Your task to perform on an android device: Play the last video I watched on Youtube Image 0: 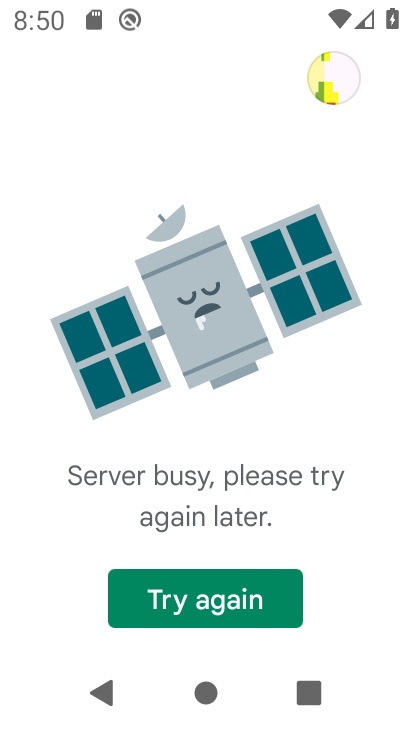
Step 0: press home button
Your task to perform on an android device: Play the last video I watched on Youtube Image 1: 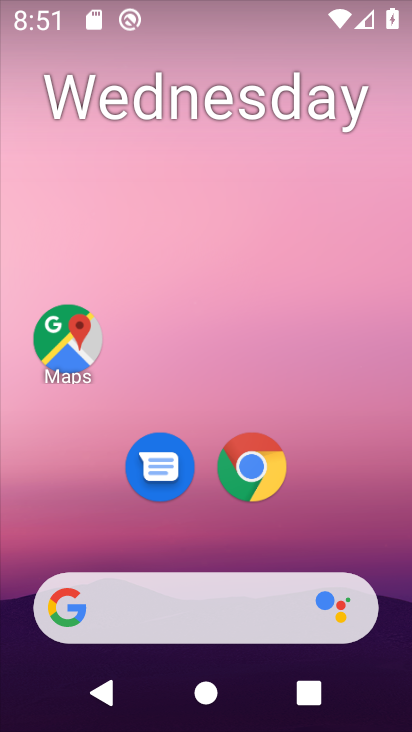
Step 1: drag from (323, 473) to (323, 33)
Your task to perform on an android device: Play the last video I watched on Youtube Image 2: 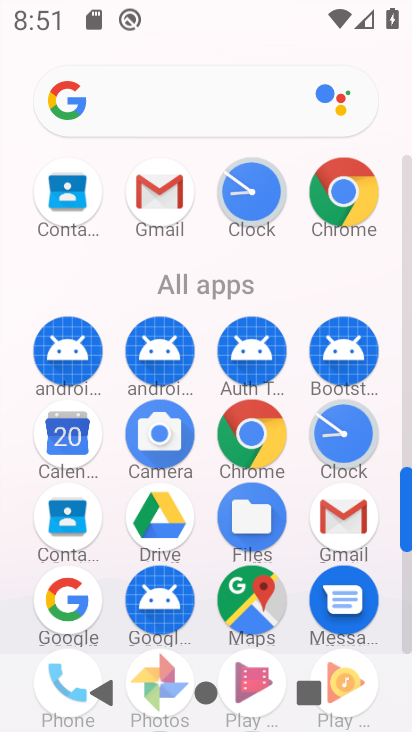
Step 2: drag from (382, 424) to (315, 195)
Your task to perform on an android device: Play the last video I watched on Youtube Image 3: 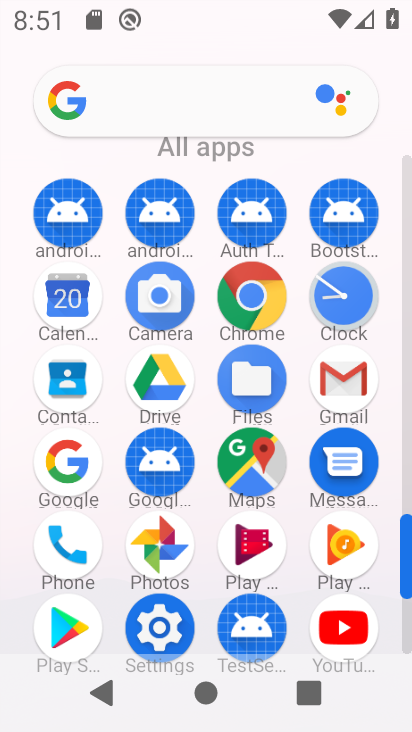
Step 3: click (351, 618)
Your task to perform on an android device: Play the last video I watched on Youtube Image 4: 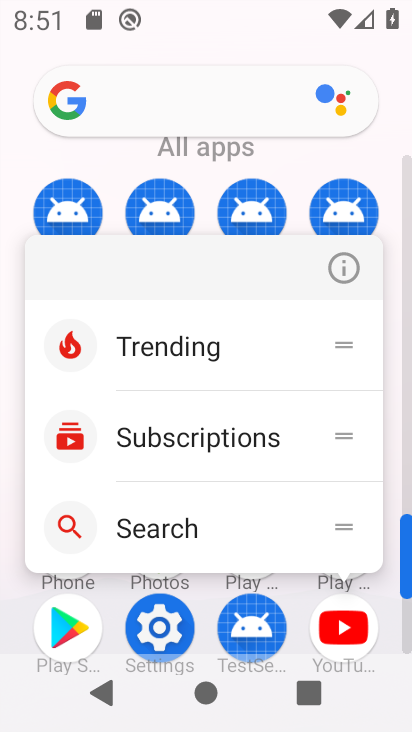
Step 4: click (351, 617)
Your task to perform on an android device: Play the last video I watched on Youtube Image 5: 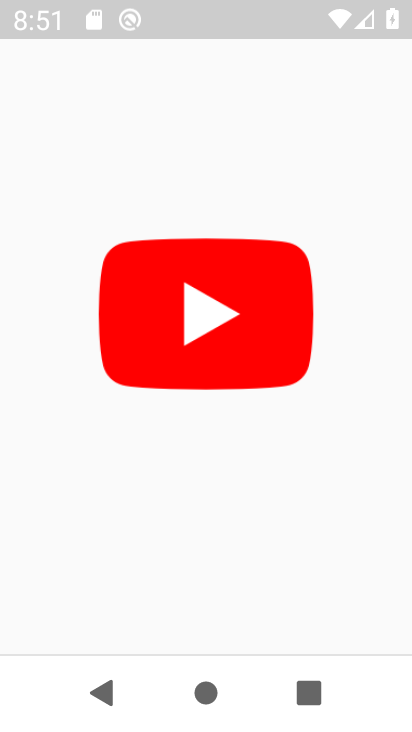
Step 5: click (351, 616)
Your task to perform on an android device: Play the last video I watched on Youtube Image 6: 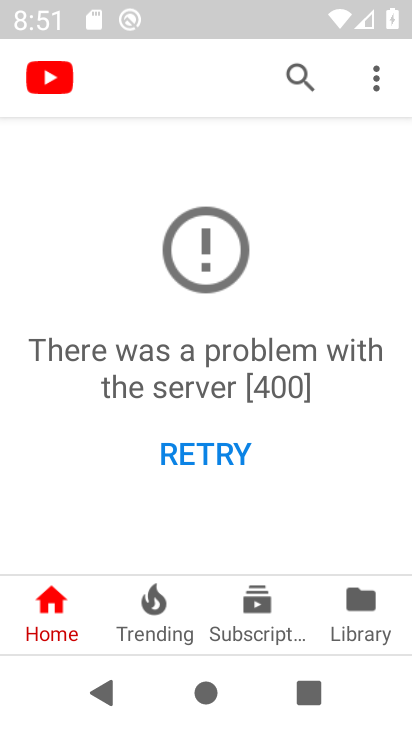
Step 6: click (352, 645)
Your task to perform on an android device: Play the last video I watched on Youtube Image 7: 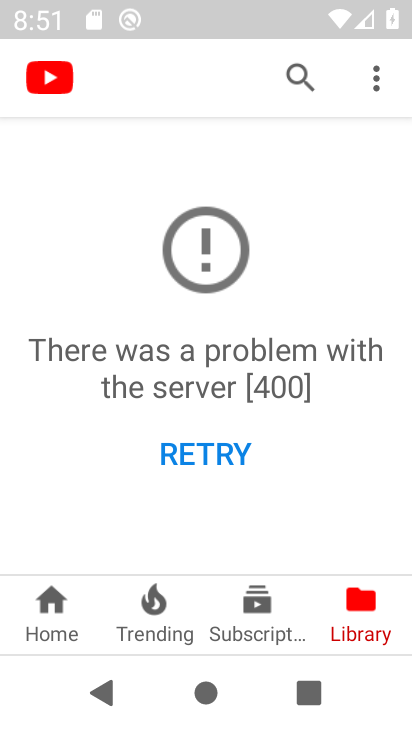
Step 7: click (358, 622)
Your task to perform on an android device: Play the last video I watched on Youtube Image 8: 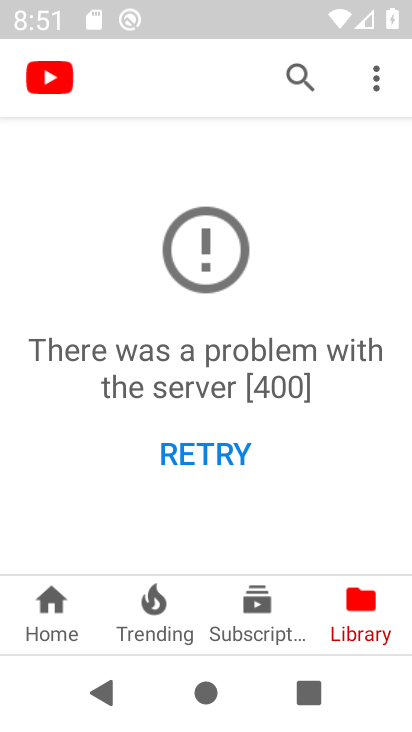
Step 8: click (358, 621)
Your task to perform on an android device: Play the last video I watched on Youtube Image 9: 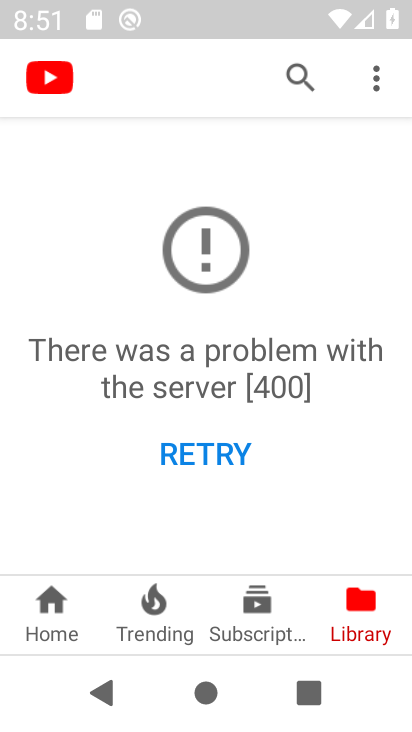
Step 9: click (358, 621)
Your task to perform on an android device: Play the last video I watched on Youtube Image 10: 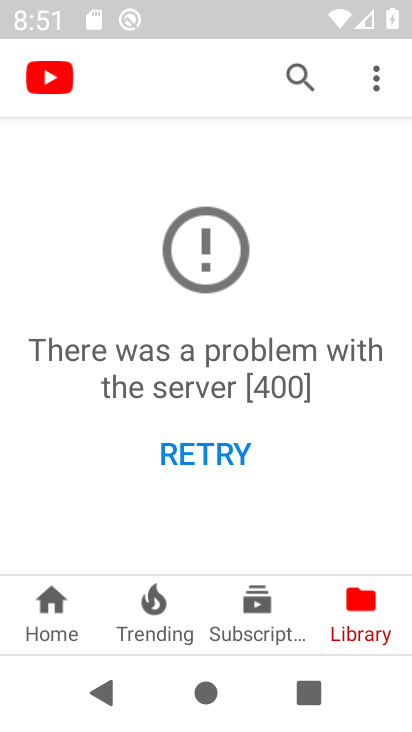
Step 10: click (363, 605)
Your task to perform on an android device: Play the last video I watched on Youtube Image 11: 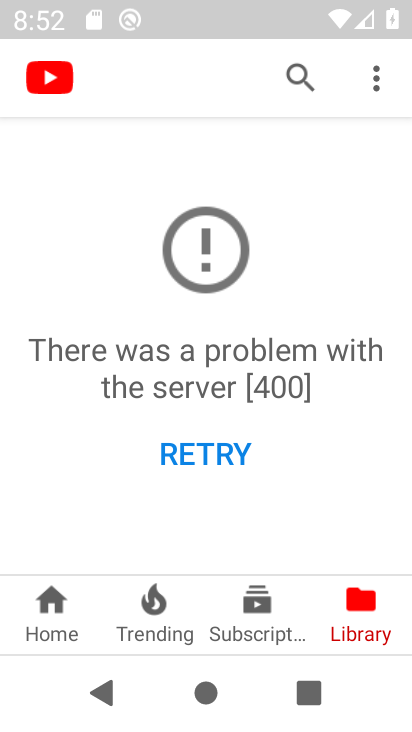
Step 11: click (364, 611)
Your task to perform on an android device: Play the last video I watched on Youtube Image 12: 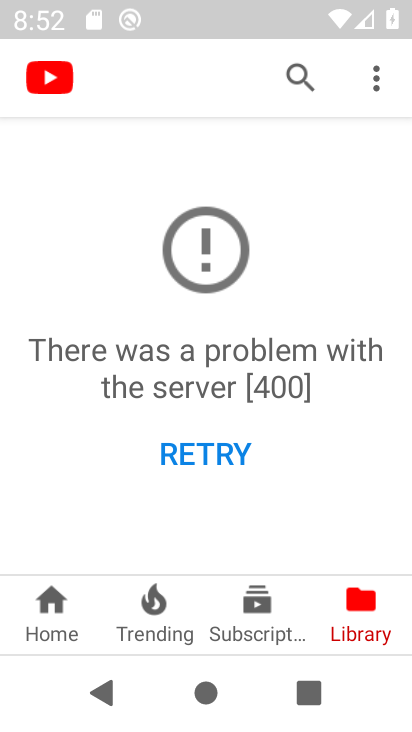
Step 12: click (364, 610)
Your task to perform on an android device: Play the last video I watched on Youtube Image 13: 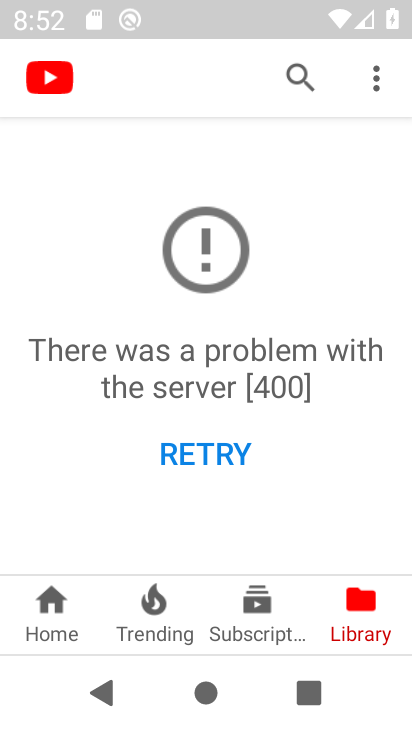
Step 13: click (363, 610)
Your task to perform on an android device: Play the last video I watched on Youtube Image 14: 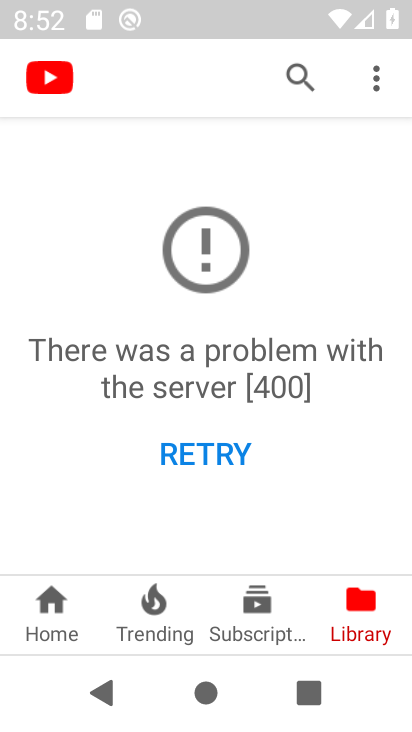
Step 14: task complete